Your task to perform on an android device: refresh tabs in the chrome app Image 0: 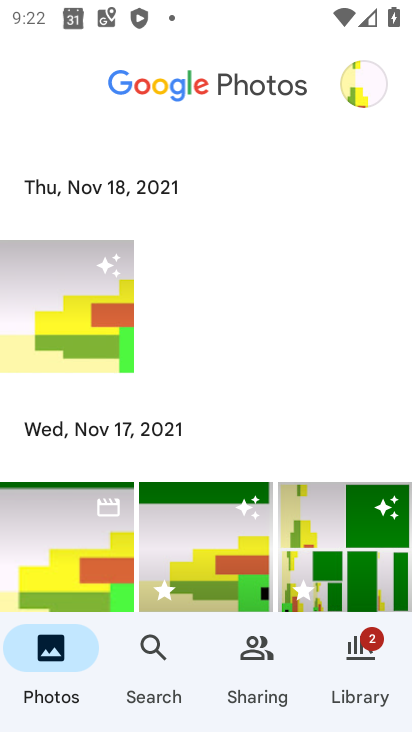
Step 0: press home button
Your task to perform on an android device: refresh tabs in the chrome app Image 1: 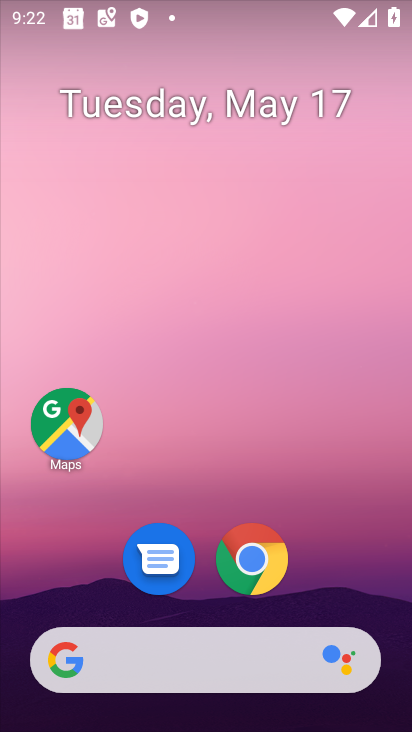
Step 1: click (269, 571)
Your task to perform on an android device: refresh tabs in the chrome app Image 2: 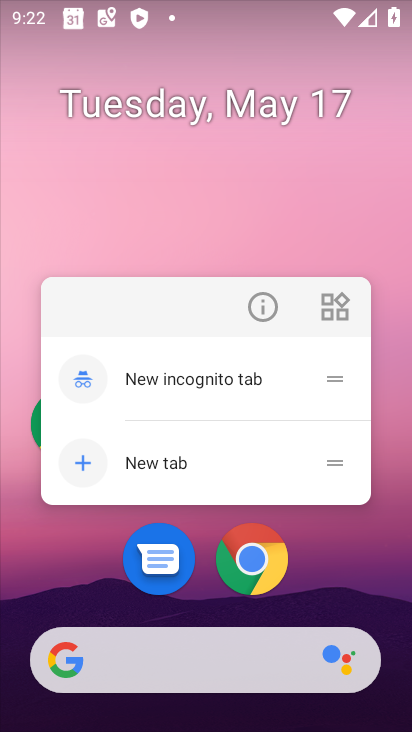
Step 2: click (269, 570)
Your task to perform on an android device: refresh tabs in the chrome app Image 3: 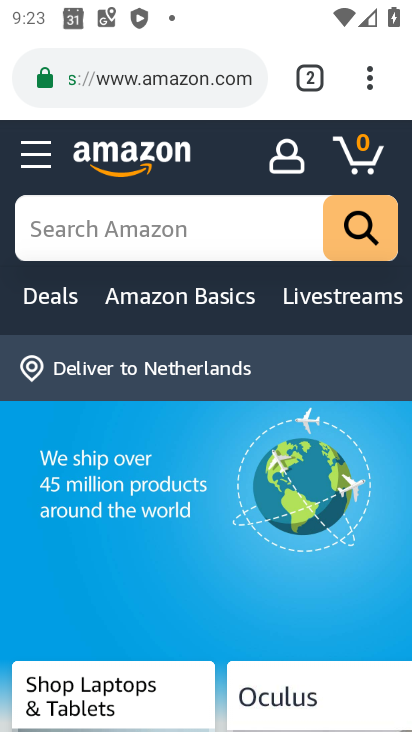
Step 3: click (372, 69)
Your task to perform on an android device: refresh tabs in the chrome app Image 4: 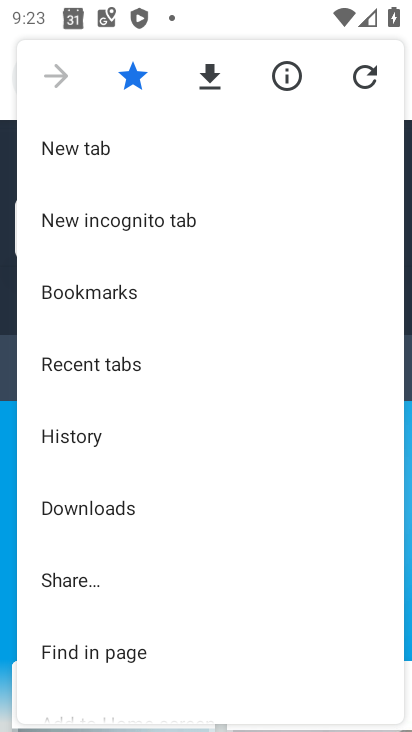
Step 4: click (373, 69)
Your task to perform on an android device: refresh tabs in the chrome app Image 5: 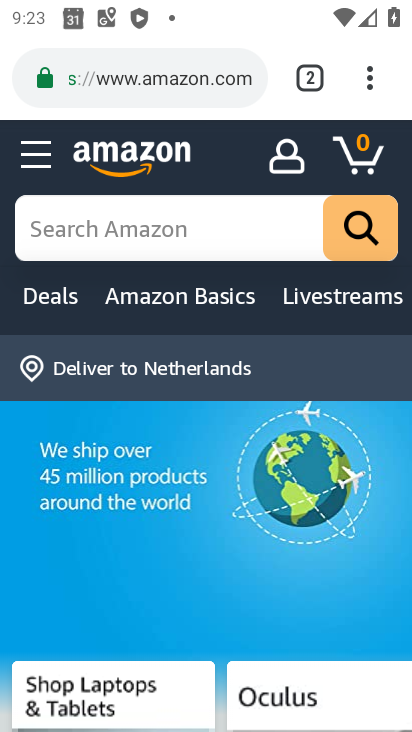
Step 5: task complete